Your task to perform on an android device: Search for sushi restaurants on Maps Image 0: 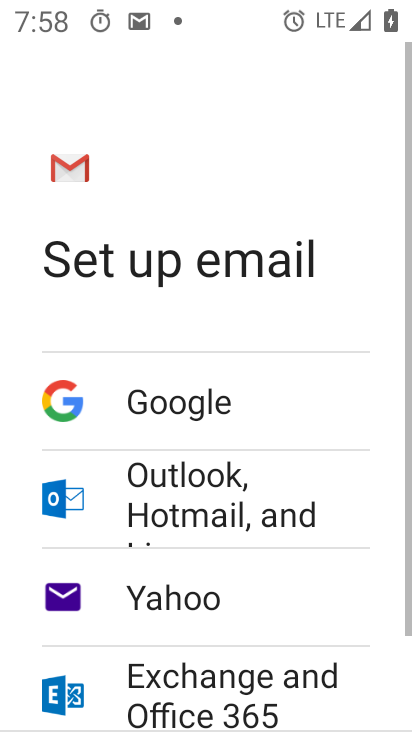
Step 0: press home button
Your task to perform on an android device: Search for sushi restaurants on Maps Image 1: 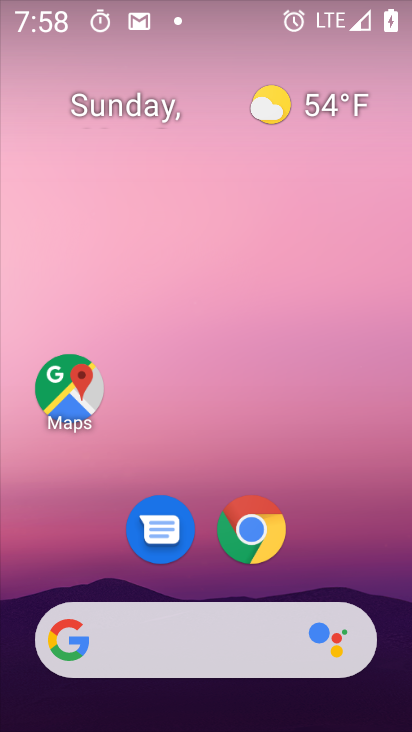
Step 1: click (61, 401)
Your task to perform on an android device: Search for sushi restaurants on Maps Image 2: 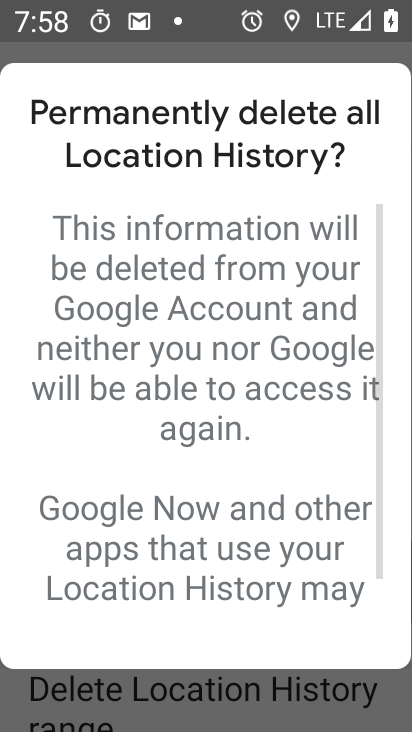
Step 2: drag from (219, 535) to (238, 313)
Your task to perform on an android device: Search for sushi restaurants on Maps Image 3: 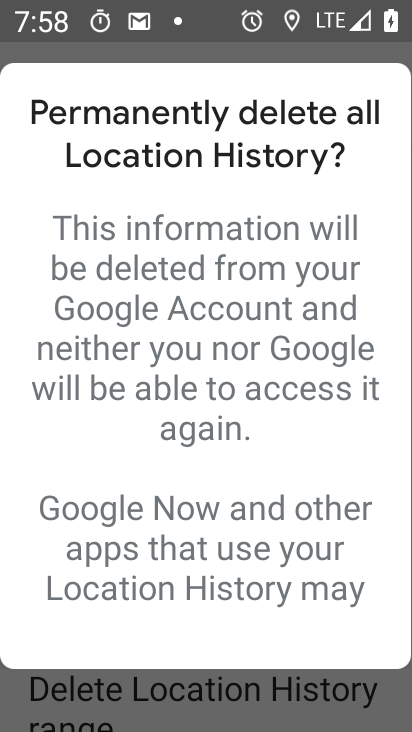
Step 3: click (240, 688)
Your task to perform on an android device: Search for sushi restaurants on Maps Image 4: 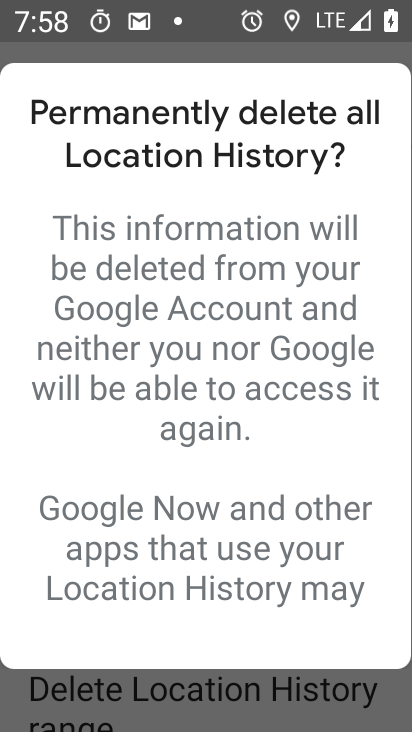
Step 4: press back button
Your task to perform on an android device: Search for sushi restaurants on Maps Image 5: 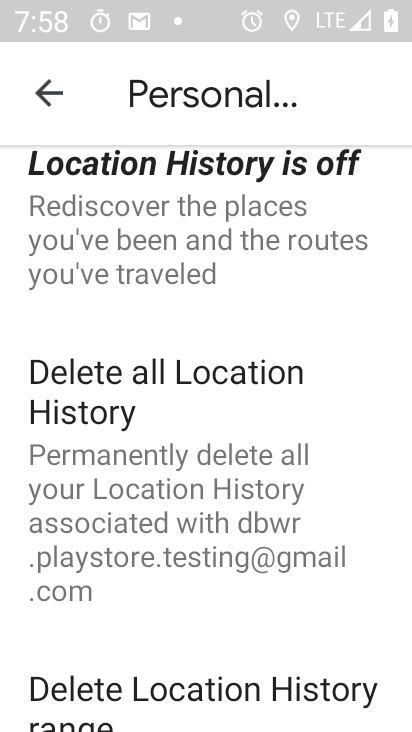
Step 5: click (77, 102)
Your task to perform on an android device: Search for sushi restaurants on Maps Image 6: 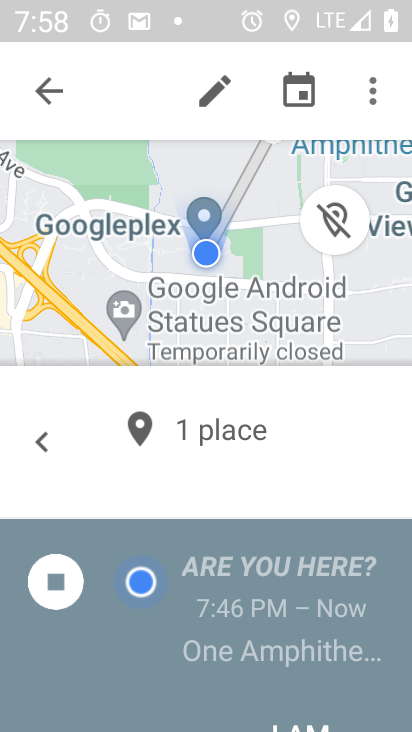
Step 6: click (77, 101)
Your task to perform on an android device: Search for sushi restaurants on Maps Image 7: 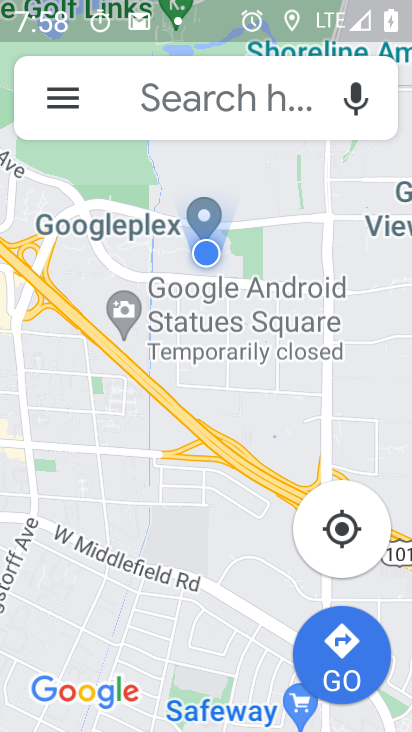
Step 7: click (177, 103)
Your task to perform on an android device: Search for sushi restaurants on Maps Image 8: 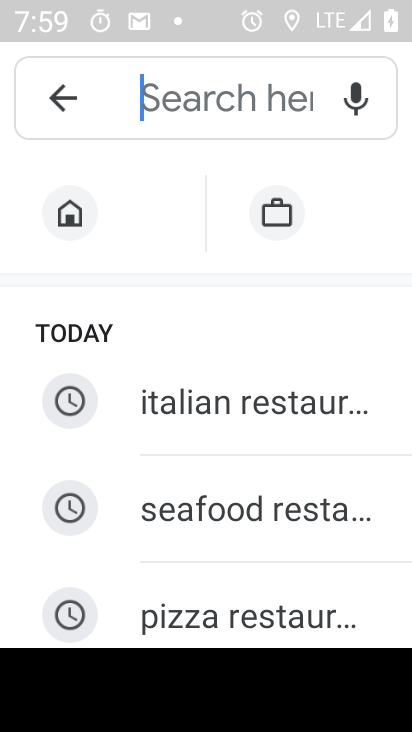
Step 8: type "sushi restaurants"
Your task to perform on an android device: Search for sushi restaurants on Maps Image 9: 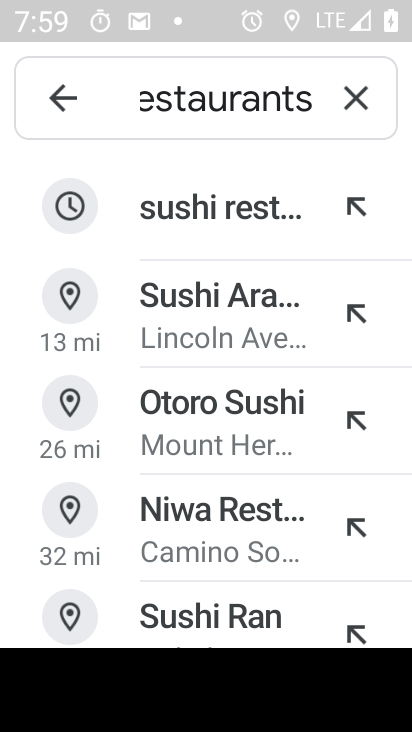
Step 9: click (171, 239)
Your task to perform on an android device: Search for sushi restaurants on Maps Image 10: 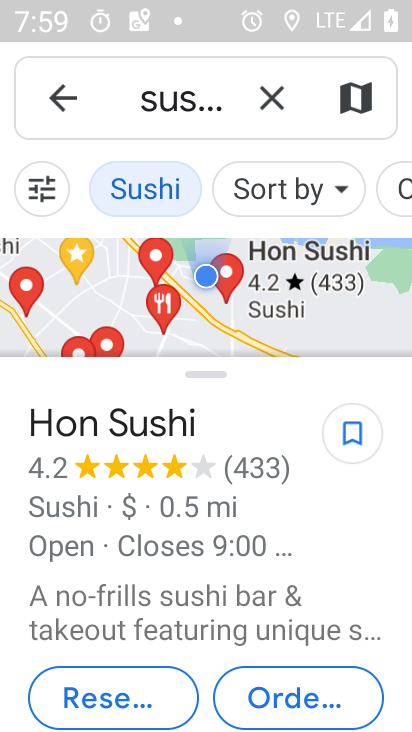
Step 10: task complete